Your task to perform on an android device: Open settings on Google Maps Image 0: 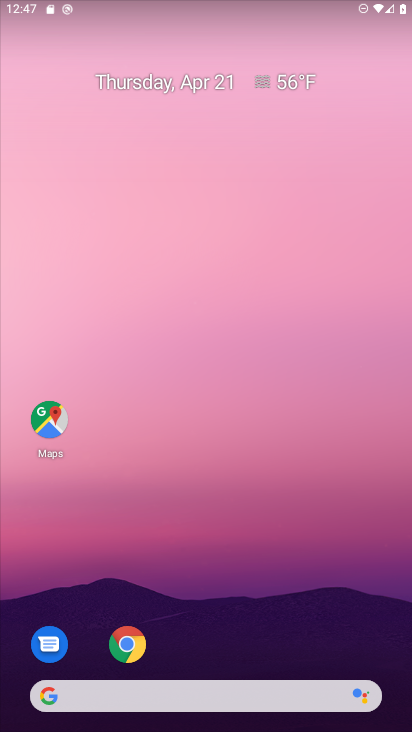
Step 0: click (39, 422)
Your task to perform on an android device: Open settings on Google Maps Image 1: 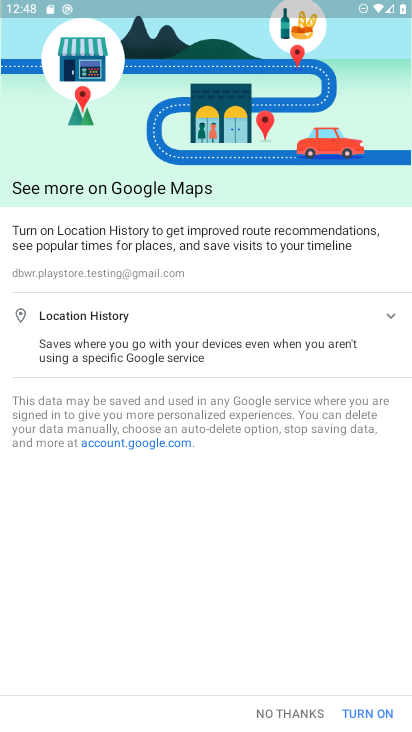
Step 1: task complete